Your task to perform on an android device: open wifi settings Image 0: 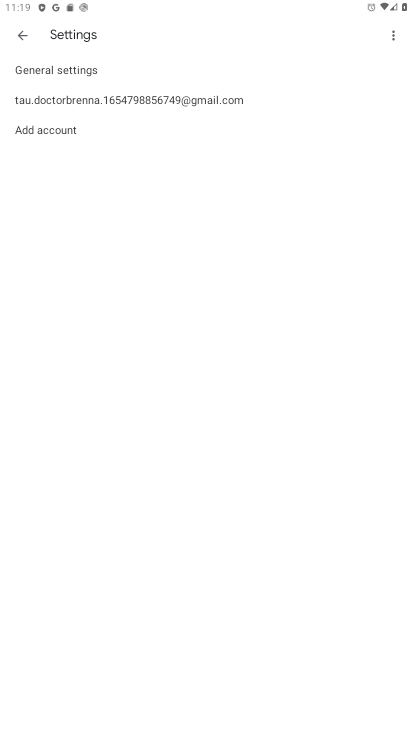
Step 0: press home button
Your task to perform on an android device: open wifi settings Image 1: 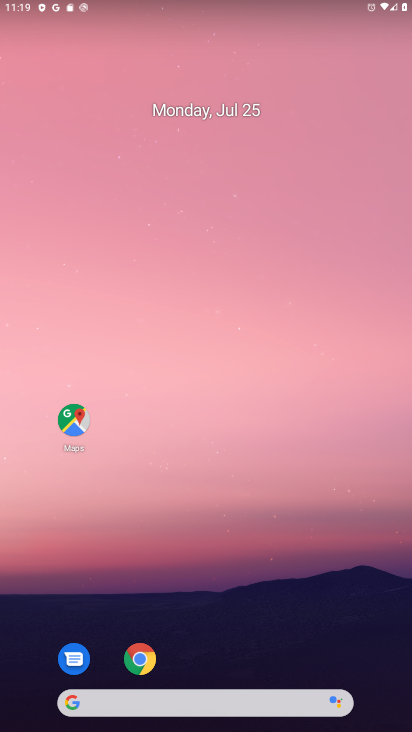
Step 1: drag from (247, 587) to (139, 0)
Your task to perform on an android device: open wifi settings Image 2: 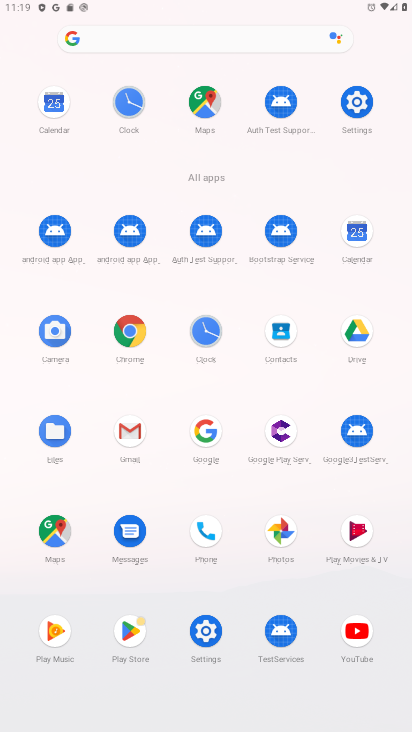
Step 2: click (347, 94)
Your task to perform on an android device: open wifi settings Image 3: 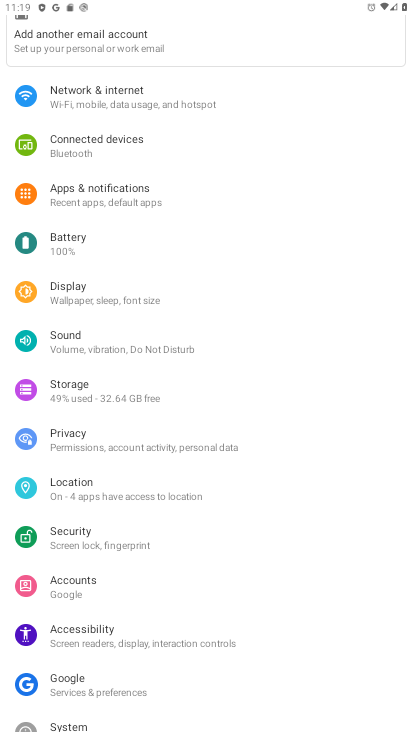
Step 3: click (91, 88)
Your task to perform on an android device: open wifi settings Image 4: 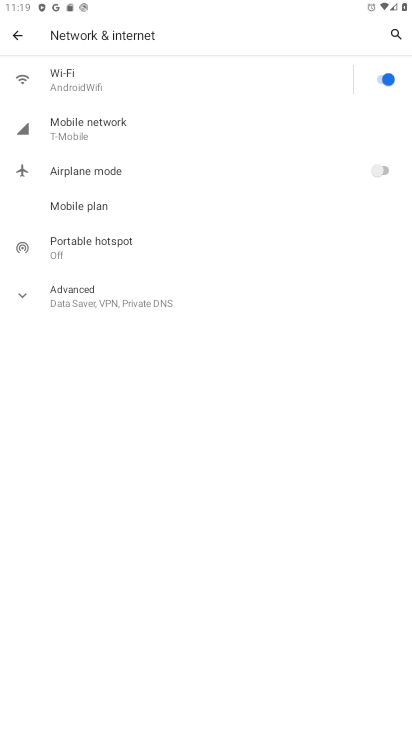
Step 4: click (89, 74)
Your task to perform on an android device: open wifi settings Image 5: 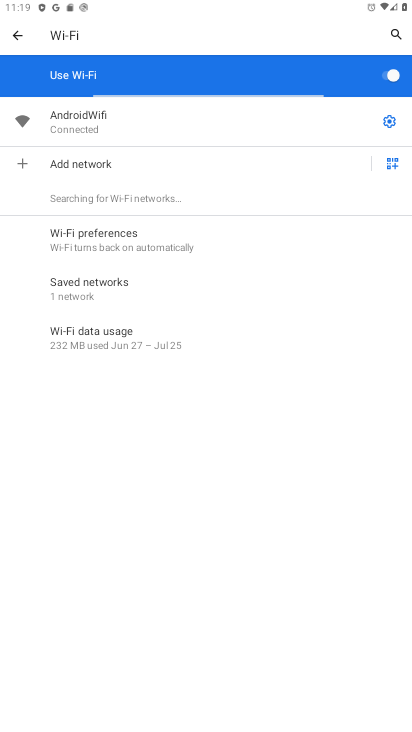
Step 5: task complete